Your task to perform on an android device: toggle translation in the chrome app Image 0: 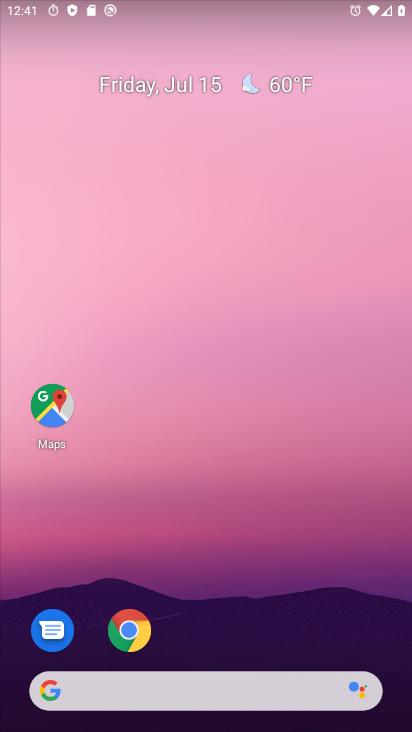
Step 0: click (127, 631)
Your task to perform on an android device: toggle translation in the chrome app Image 1: 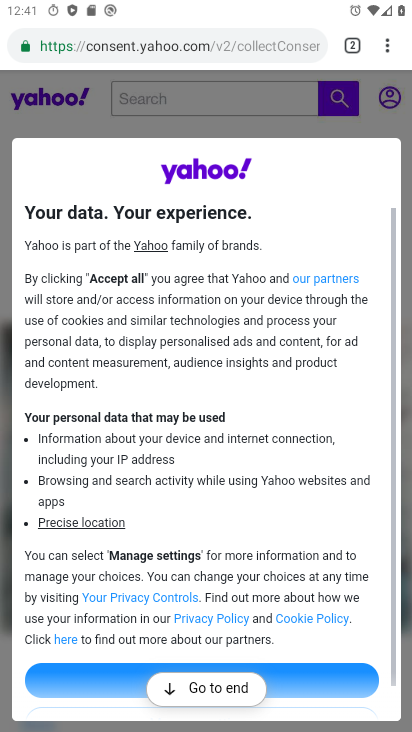
Step 1: click (382, 44)
Your task to perform on an android device: toggle translation in the chrome app Image 2: 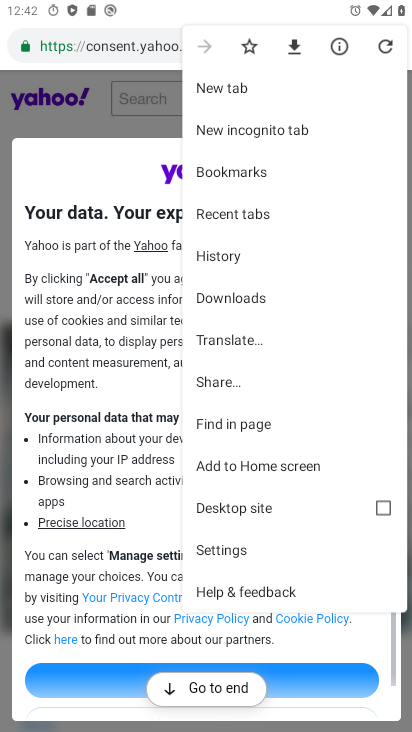
Step 2: click (217, 552)
Your task to perform on an android device: toggle translation in the chrome app Image 3: 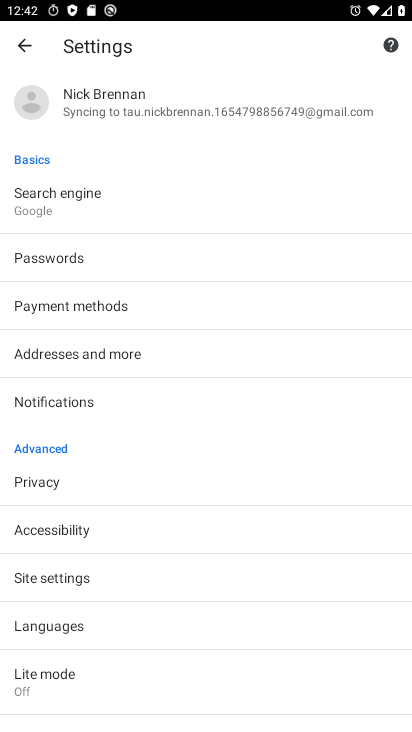
Step 3: click (51, 631)
Your task to perform on an android device: toggle translation in the chrome app Image 4: 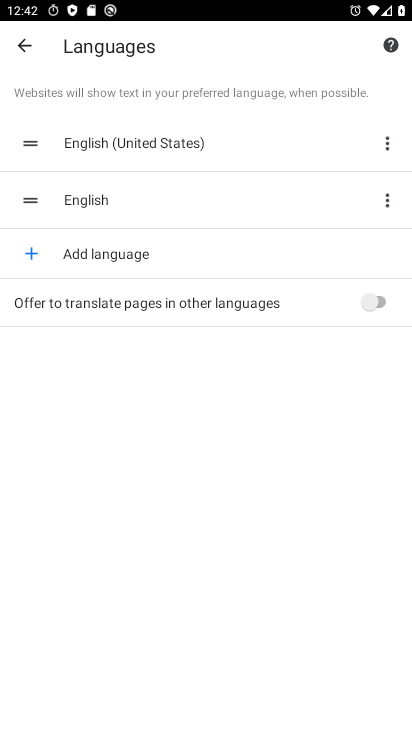
Step 4: click (386, 302)
Your task to perform on an android device: toggle translation in the chrome app Image 5: 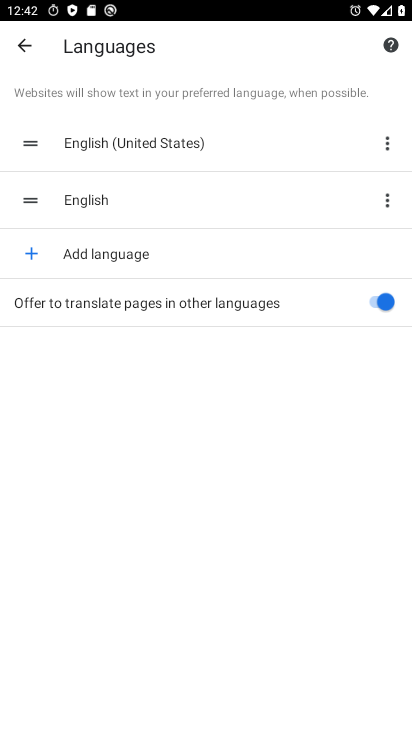
Step 5: task complete